Your task to perform on an android device: Go to Maps Image 0: 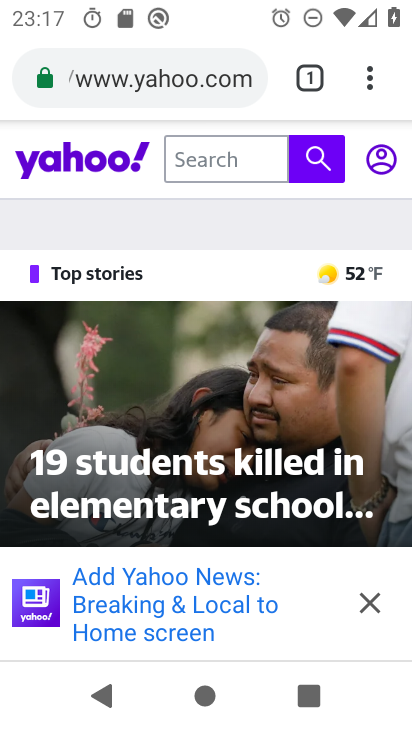
Step 0: press home button
Your task to perform on an android device: Go to Maps Image 1: 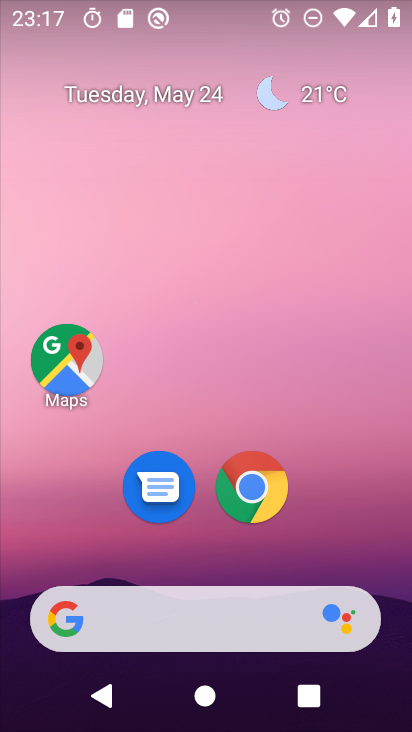
Step 1: click (64, 363)
Your task to perform on an android device: Go to Maps Image 2: 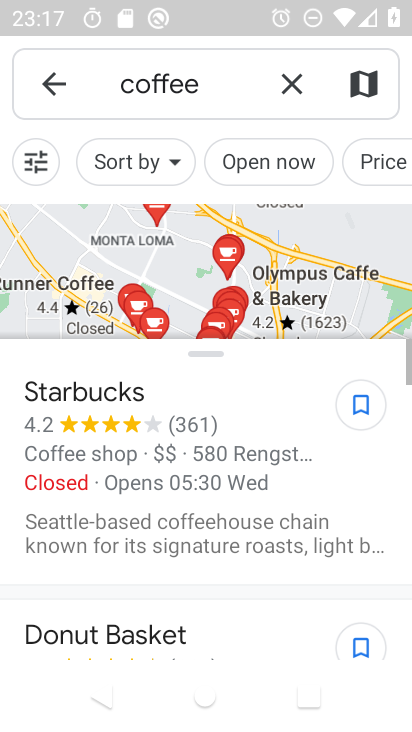
Step 2: task complete